Your task to perform on an android device: Open ESPN.com Image 0: 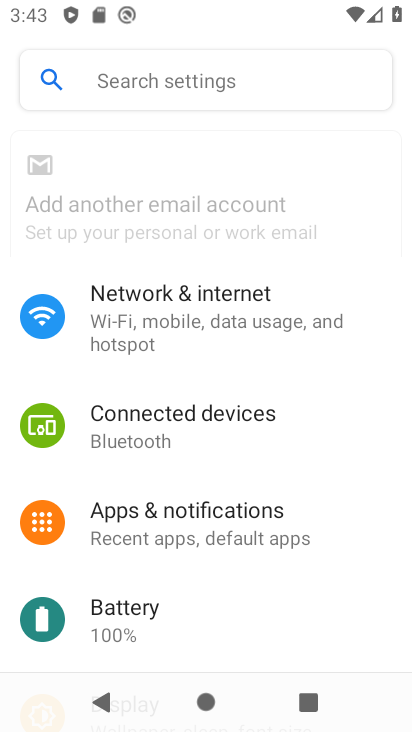
Step 0: press home button
Your task to perform on an android device: Open ESPN.com Image 1: 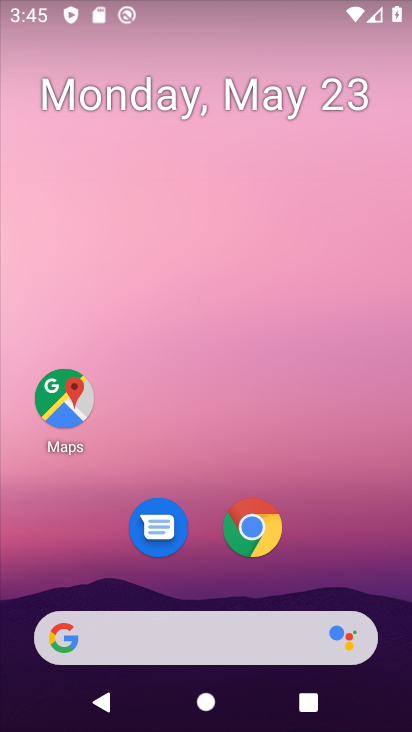
Step 1: drag from (355, 511) to (211, 314)
Your task to perform on an android device: Open ESPN.com Image 2: 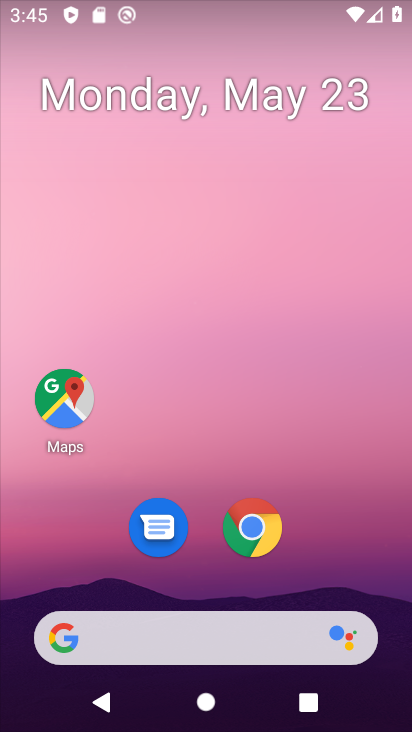
Step 2: click (249, 535)
Your task to perform on an android device: Open ESPN.com Image 3: 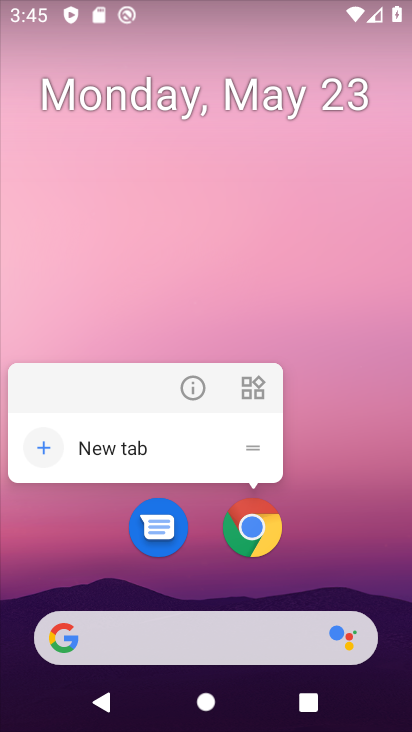
Step 3: click (249, 535)
Your task to perform on an android device: Open ESPN.com Image 4: 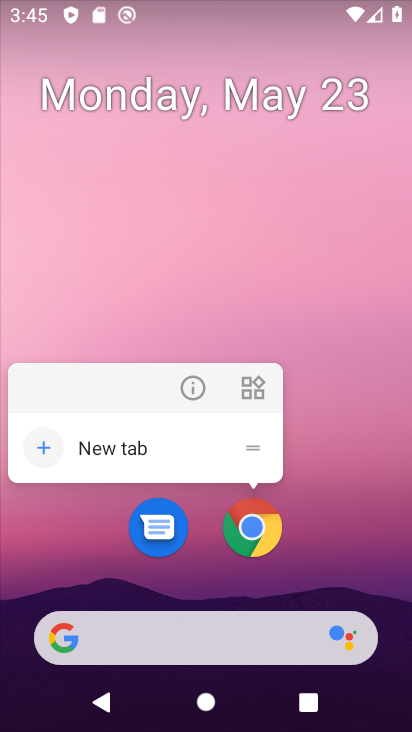
Step 4: click (249, 535)
Your task to perform on an android device: Open ESPN.com Image 5: 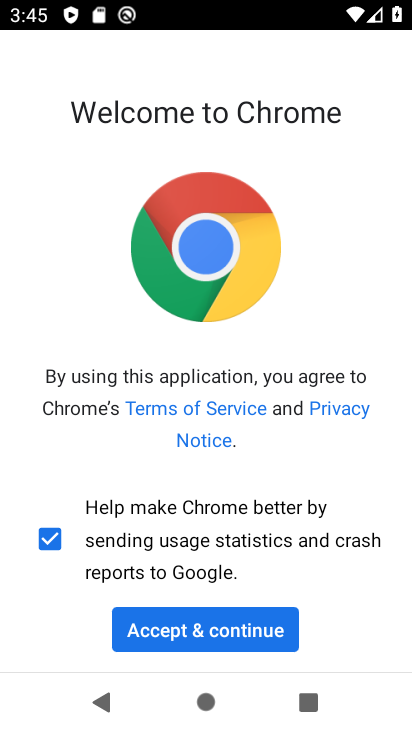
Step 5: click (231, 624)
Your task to perform on an android device: Open ESPN.com Image 6: 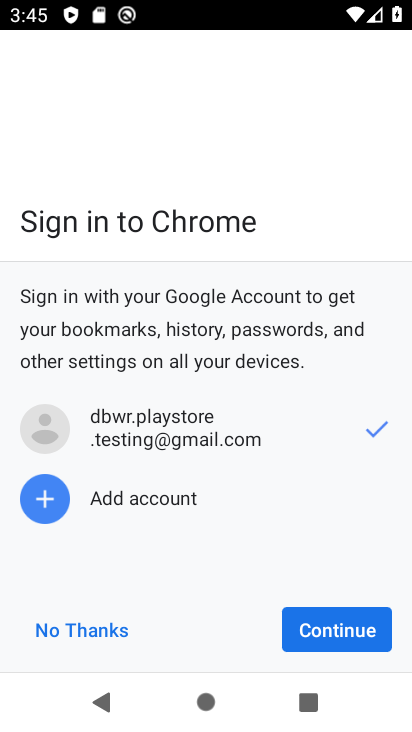
Step 6: click (381, 630)
Your task to perform on an android device: Open ESPN.com Image 7: 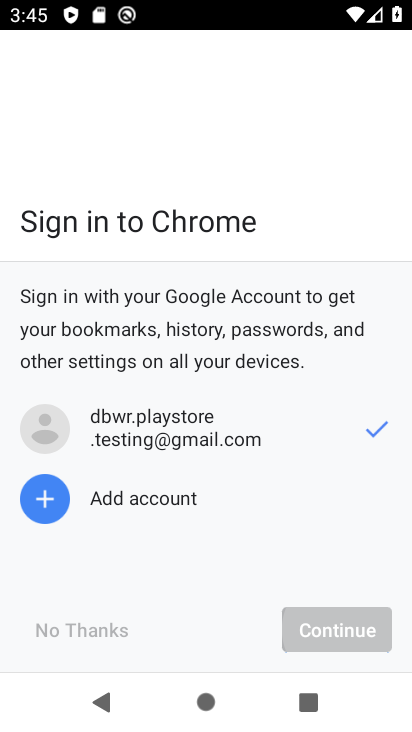
Step 7: click (381, 630)
Your task to perform on an android device: Open ESPN.com Image 8: 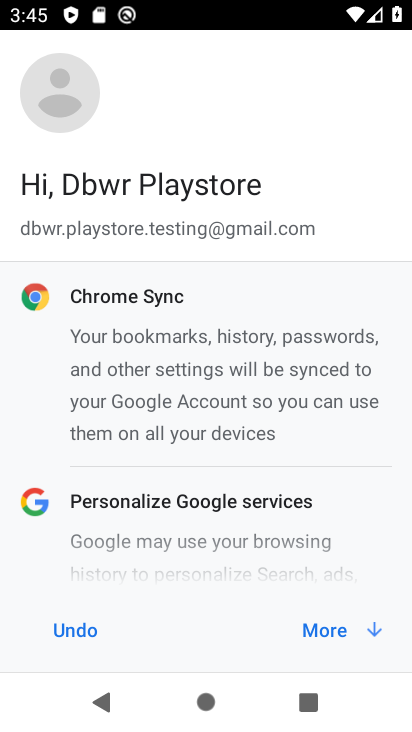
Step 8: click (381, 630)
Your task to perform on an android device: Open ESPN.com Image 9: 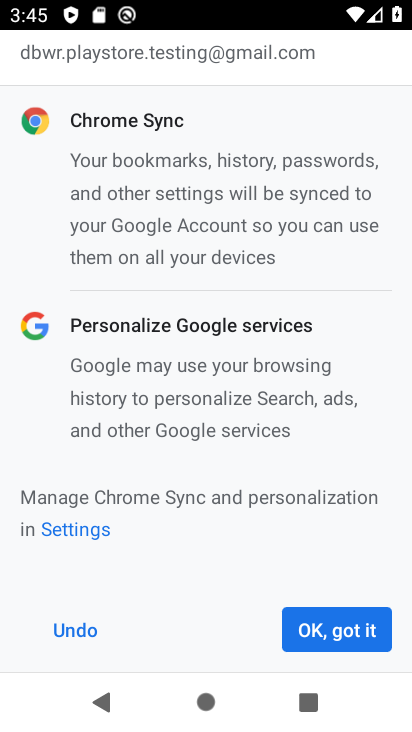
Step 9: click (381, 630)
Your task to perform on an android device: Open ESPN.com Image 10: 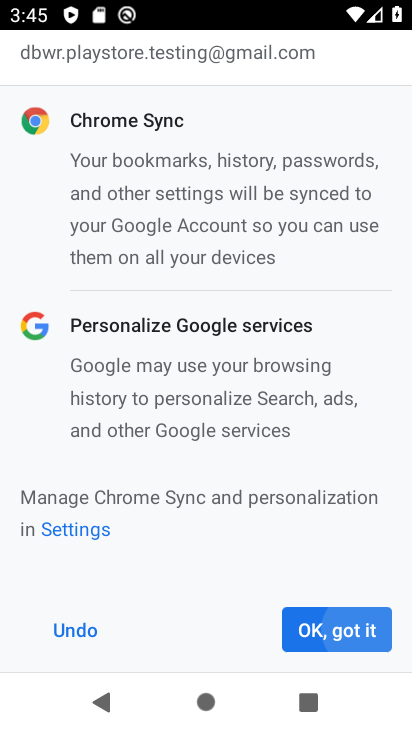
Step 10: click (381, 630)
Your task to perform on an android device: Open ESPN.com Image 11: 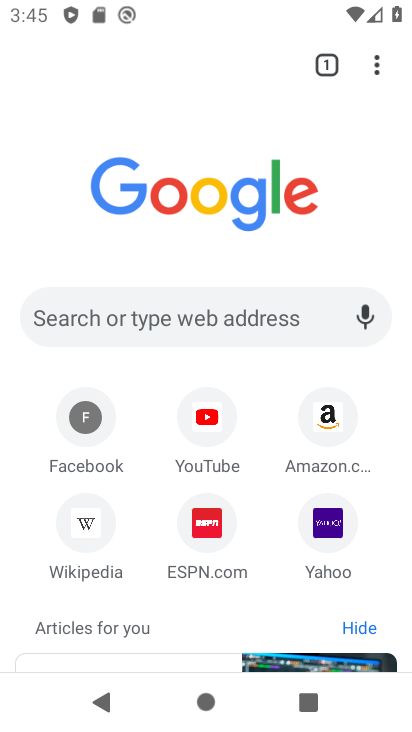
Step 11: click (214, 513)
Your task to perform on an android device: Open ESPN.com Image 12: 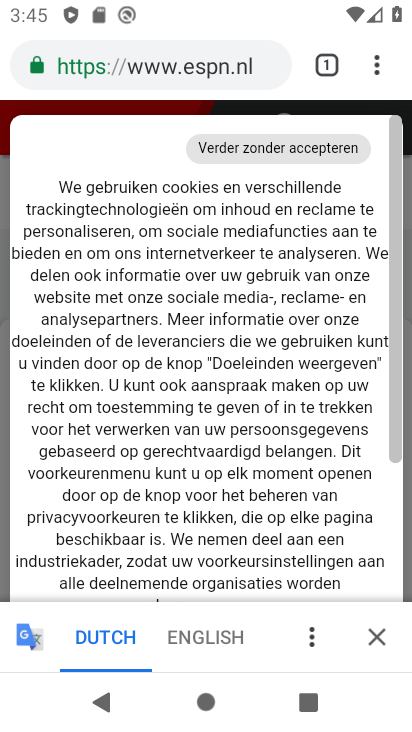
Step 12: task complete